Your task to perform on an android device: change alarm snooze length Image 0: 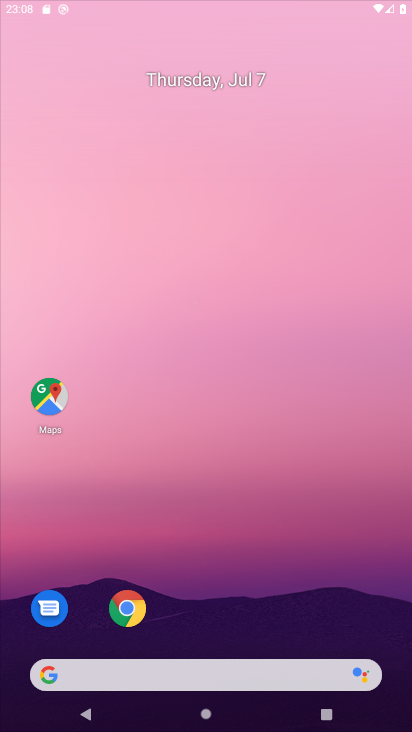
Step 0: drag from (267, 597) to (258, 269)
Your task to perform on an android device: change alarm snooze length Image 1: 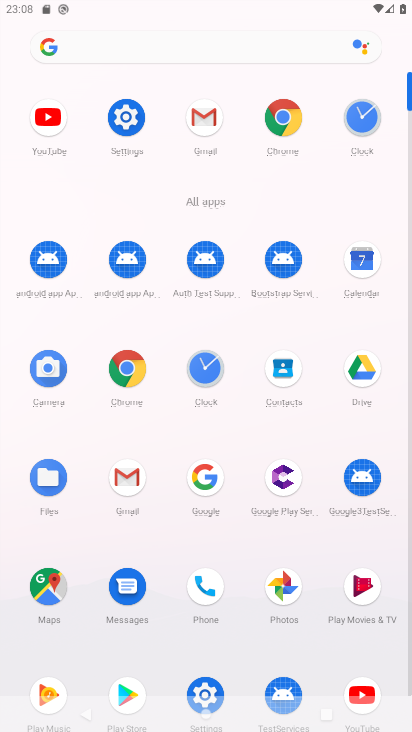
Step 1: click (201, 358)
Your task to perform on an android device: change alarm snooze length Image 2: 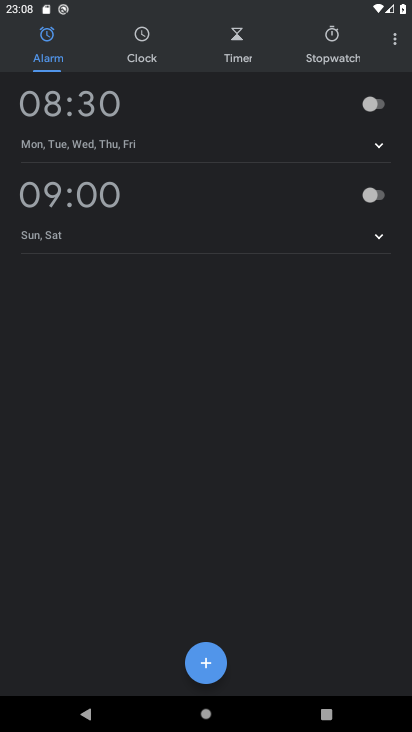
Step 2: click (407, 46)
Your task to perform on an android device: change alarm snooze length Image 3: 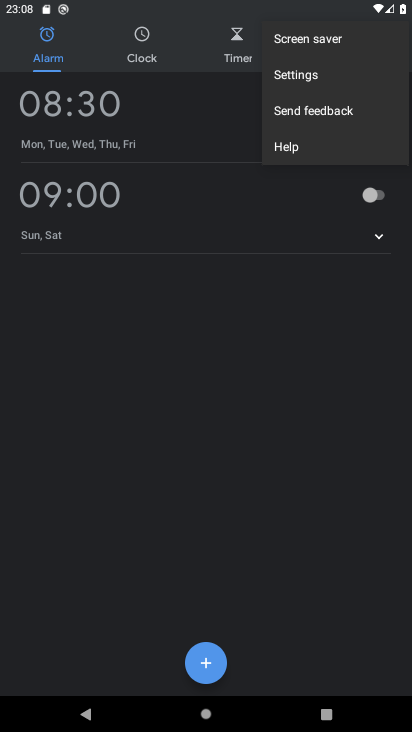
Step 3: click (319, 69)
Your task to perform on an android device: change alarm snooze length Image 4: 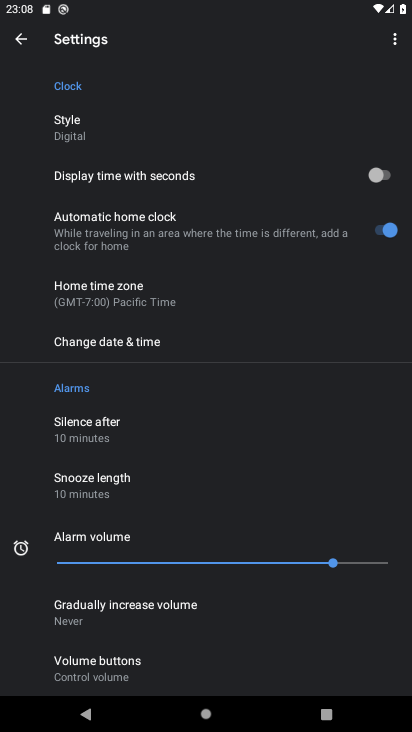
Step 4: click (119, 471)
Your task to perform on an android device: change alarm snooze length Image 5: 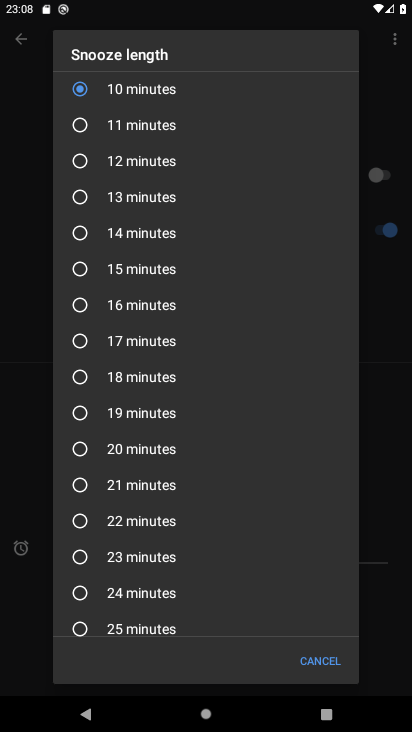
Step 5: click (126, 264)
Your task to perform on an android device: change alarm snooze length Image 6: 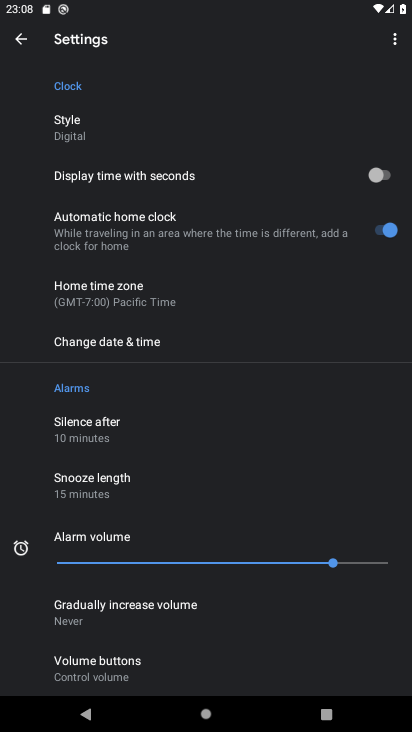
Step 6: task complete